Your task to perform on an android device: check out phone information Image 0: 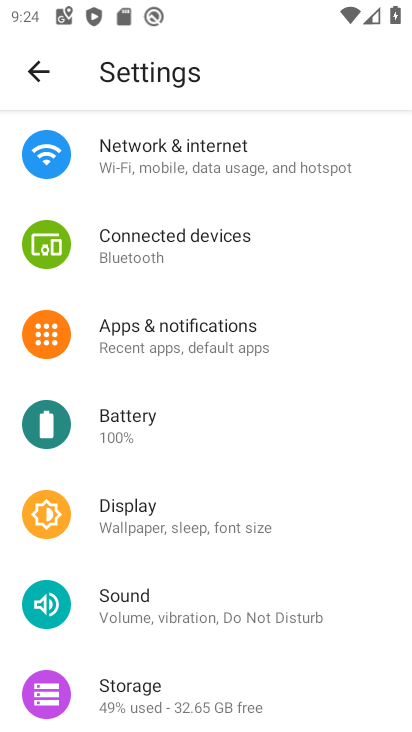
Step 0: drag from (315, 540) to (357, 145)
Your task to perform on an android device: check out phone information Image 1: 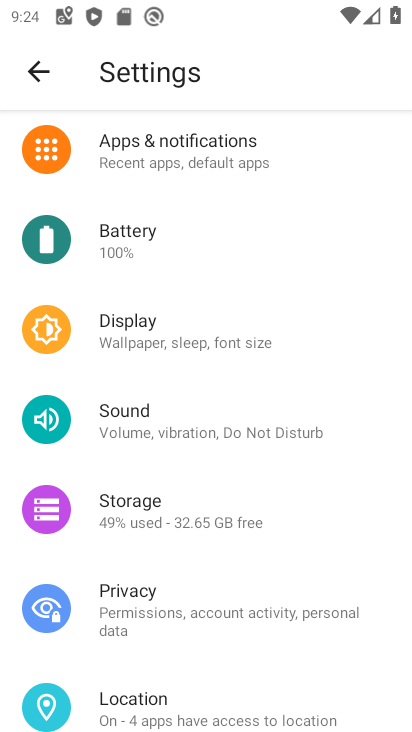
Step 1: drag from (251, 656) to (233, 266)
Your task to perform on an android device: check out phone information Image 2: 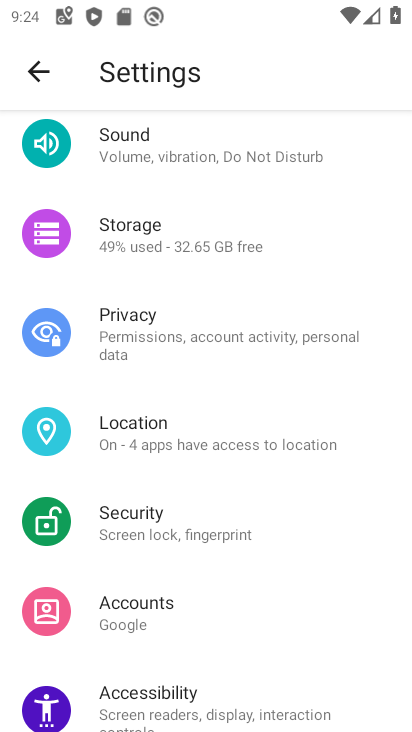
Step 2: drag from (217, 675) to (225, 212)
Your task to perform on an android device: check out phone information Image 3: 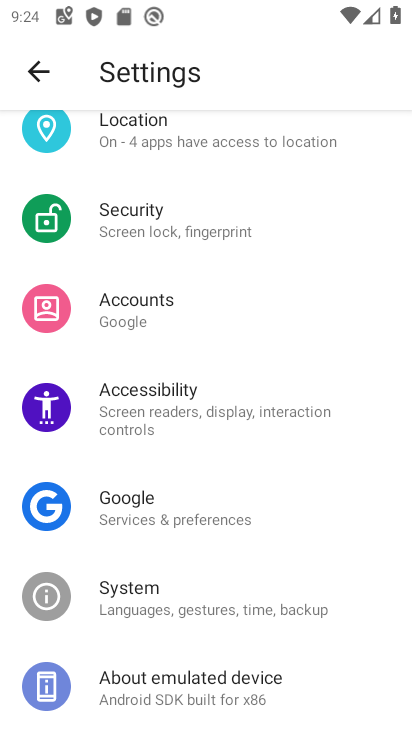
Step 3: click (194, 708)
Your task to perform on an android device: check out phone information Image 4: 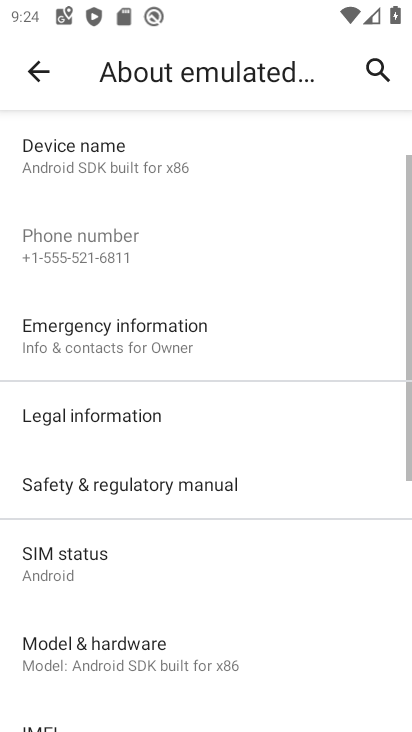
Step 4: click (138, 646)
Your task to perform on an android device: check out phone information Image 5: 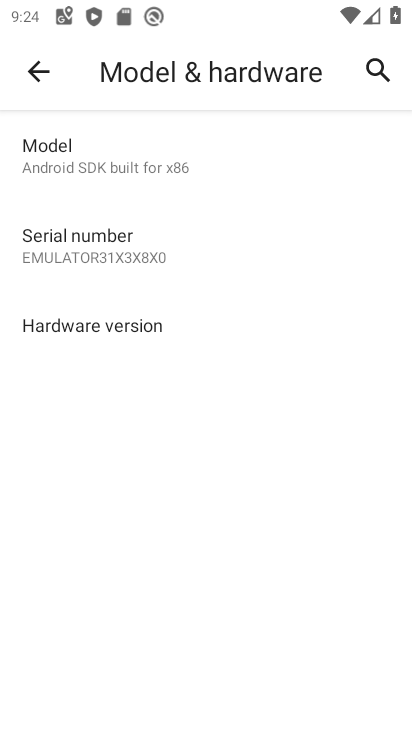
Step 5: task complete